Your task to perform on an android device: open app "ColorNote Notepad Notes" Image 0: 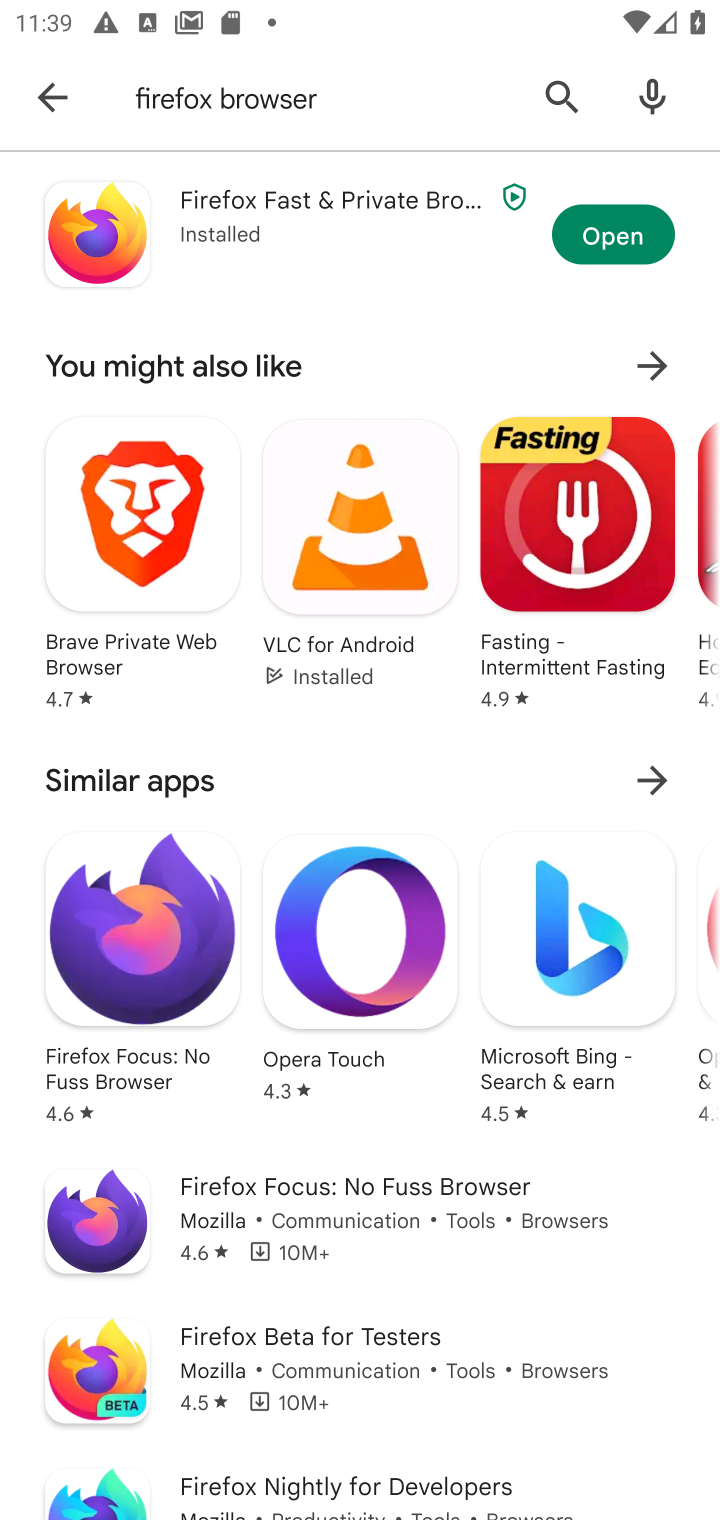
Step 0: press home button
Your task to perform on an android device: open app "ColorNote Notepad Notes" Image 1: 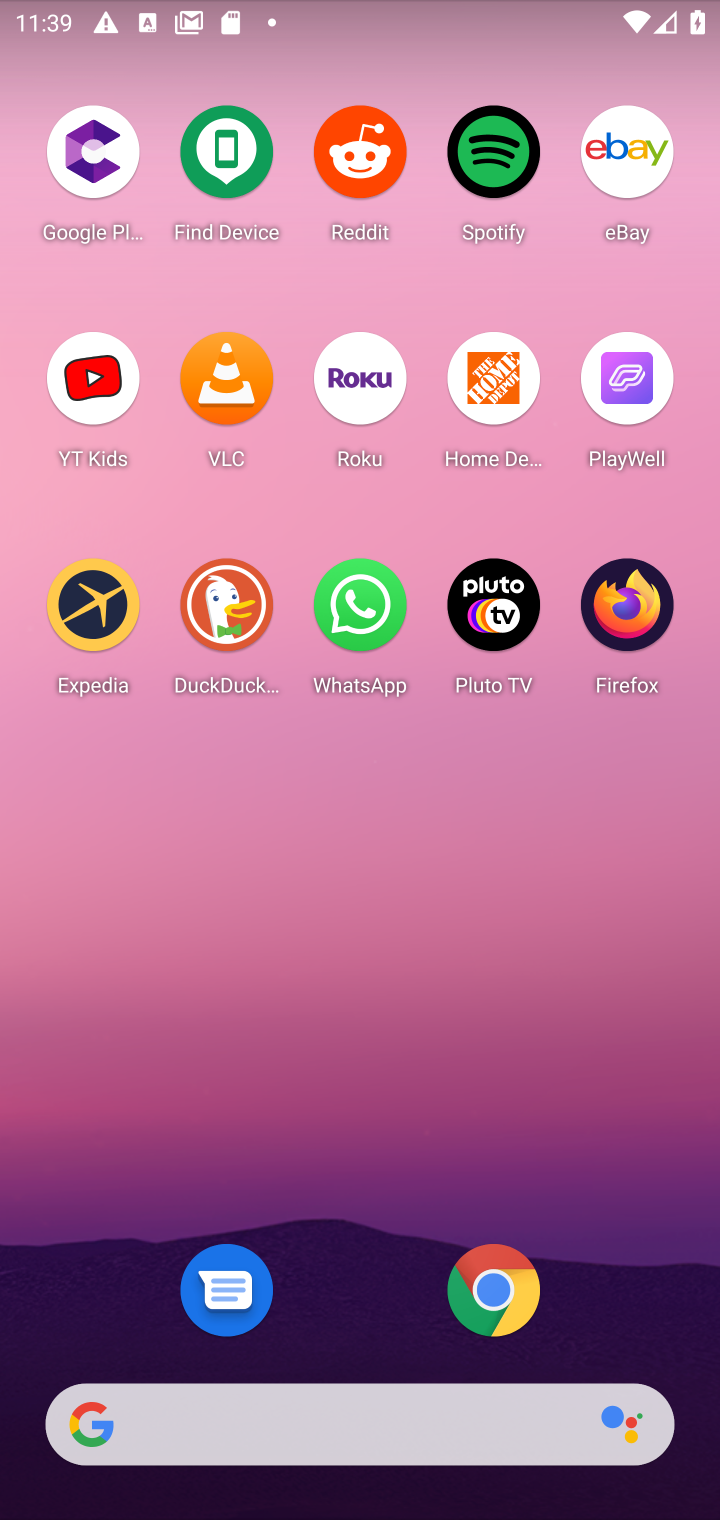
Step 1: drag from (330, 1374) to (330, 150)
Your task to perform on an android device: open app "ColorNote Notepad Notes" Image 2: 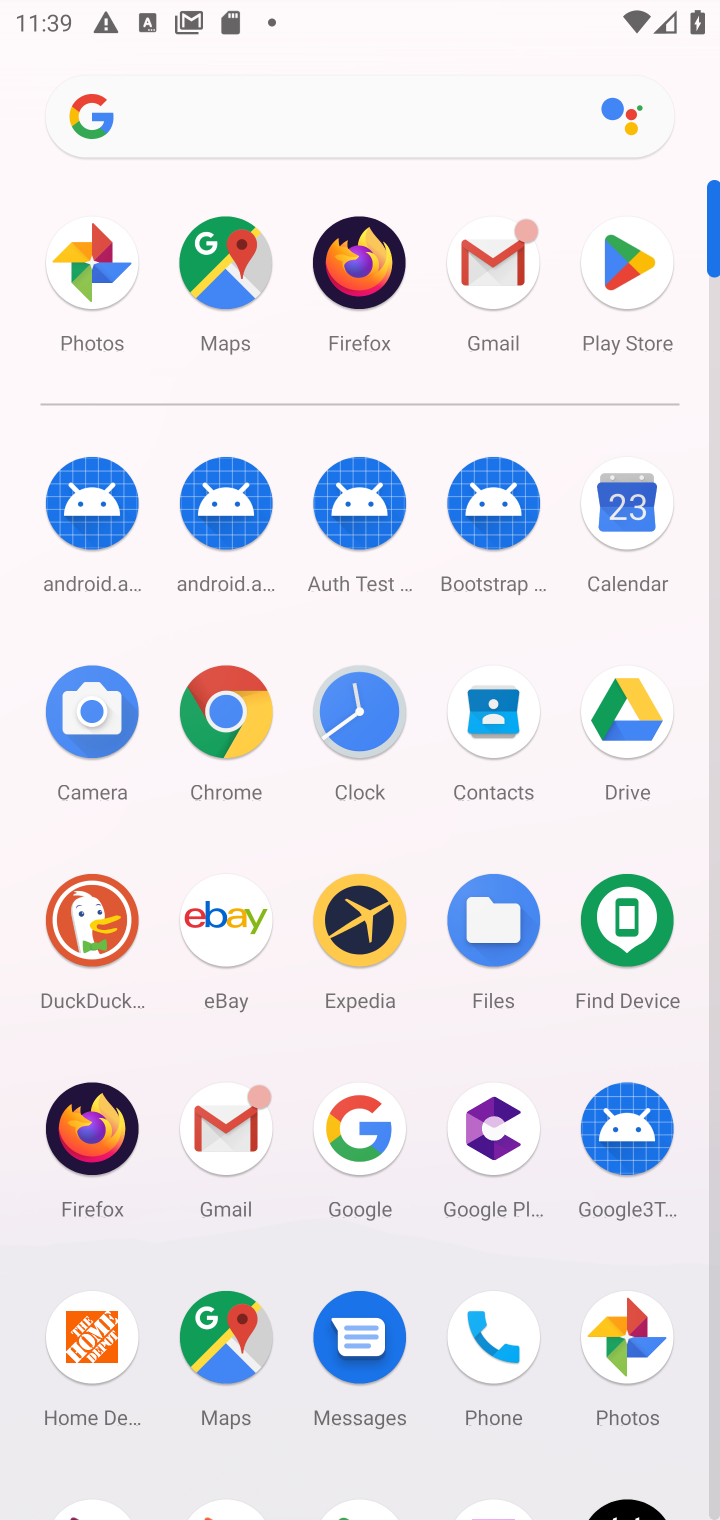
Step 2: click (628, 255)
Your task to perform on an android device: open app "ColorNote Notepad Notes" Image 3: 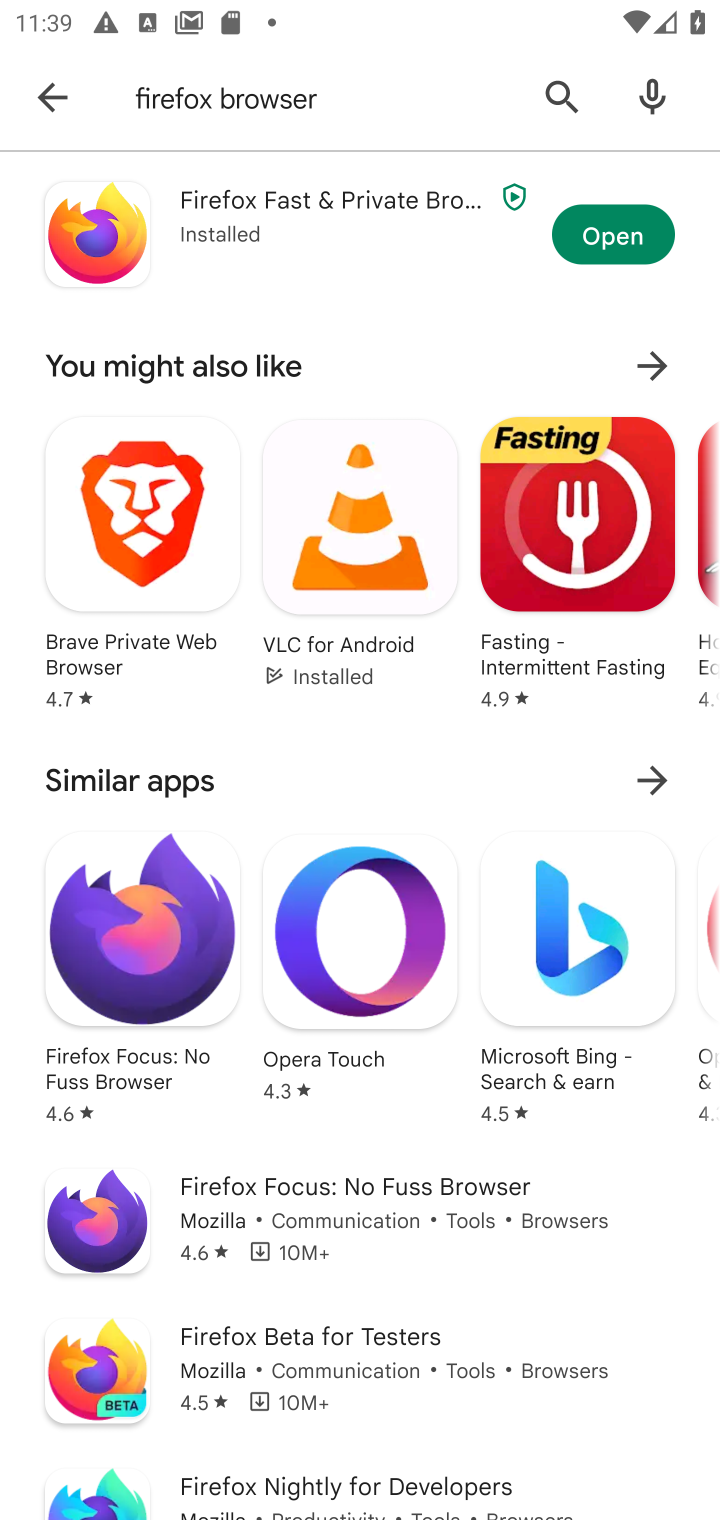
Step 3: click (561, 80)
Your task to perform on an android device: open app "ColorNote Notepad Notes" Image 4: 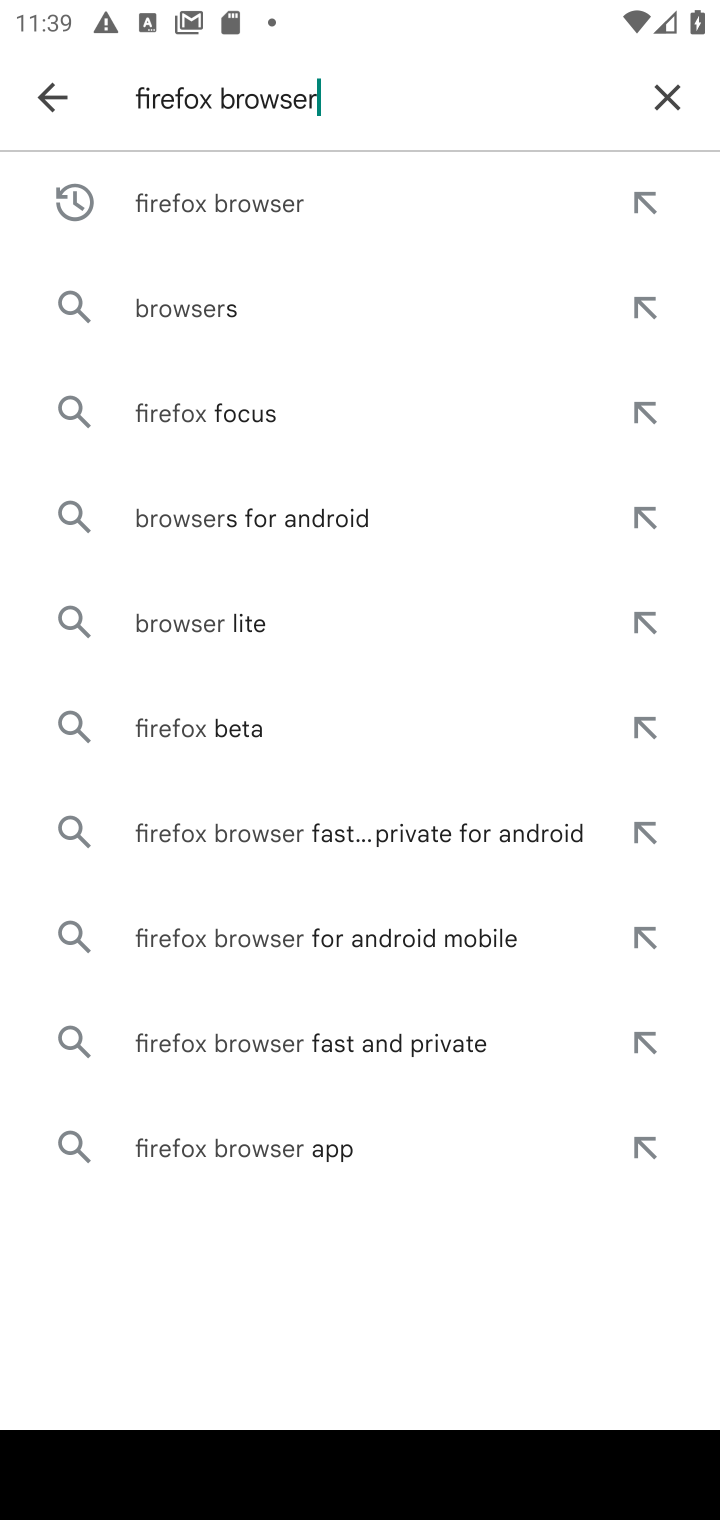
Step 4: click (665, 97)
Your task to perform on an android device: open app "ColorNote Notepad Notes" Image 5: 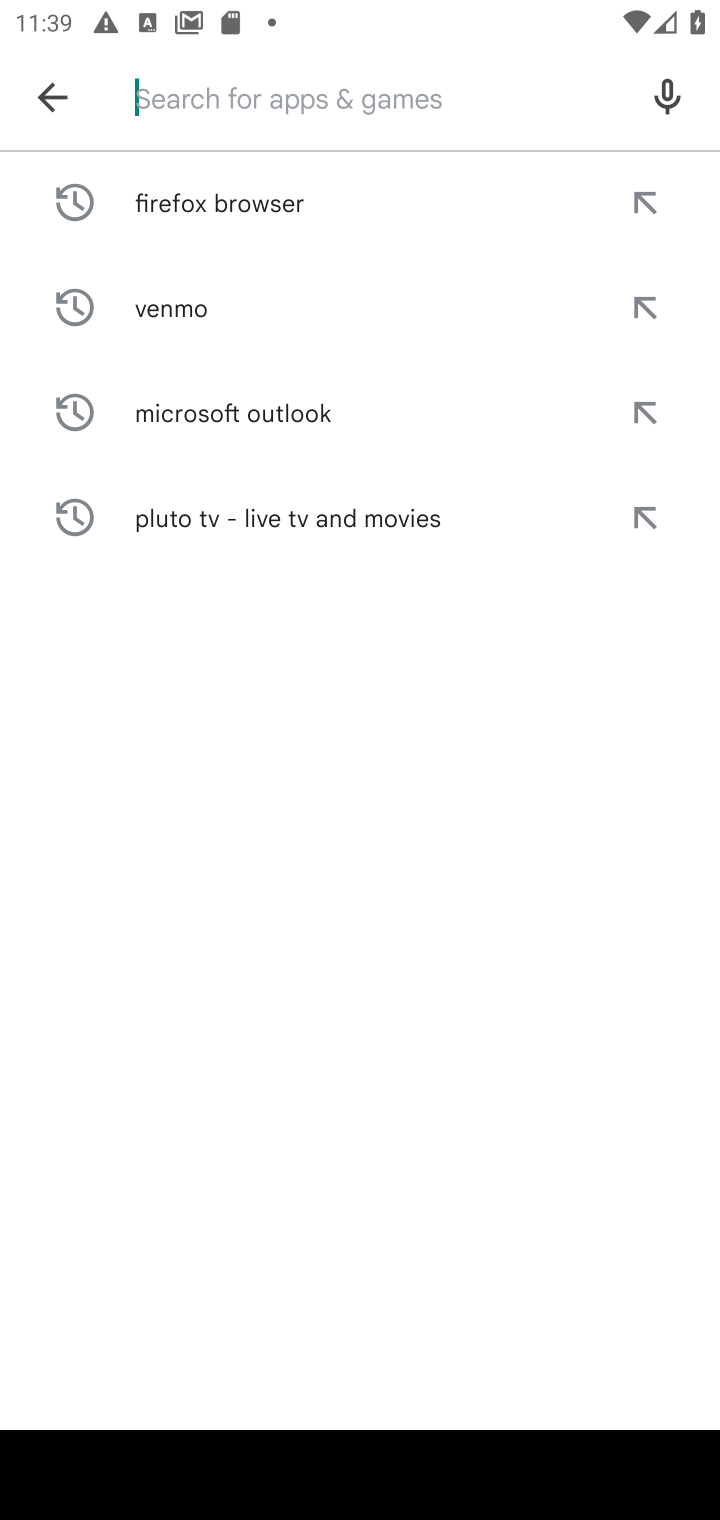
Step 5: type "ColorNote Notepad Notes"
Your task to perform on an android device: open app "ColorNote Notepad Notes" Image 6: 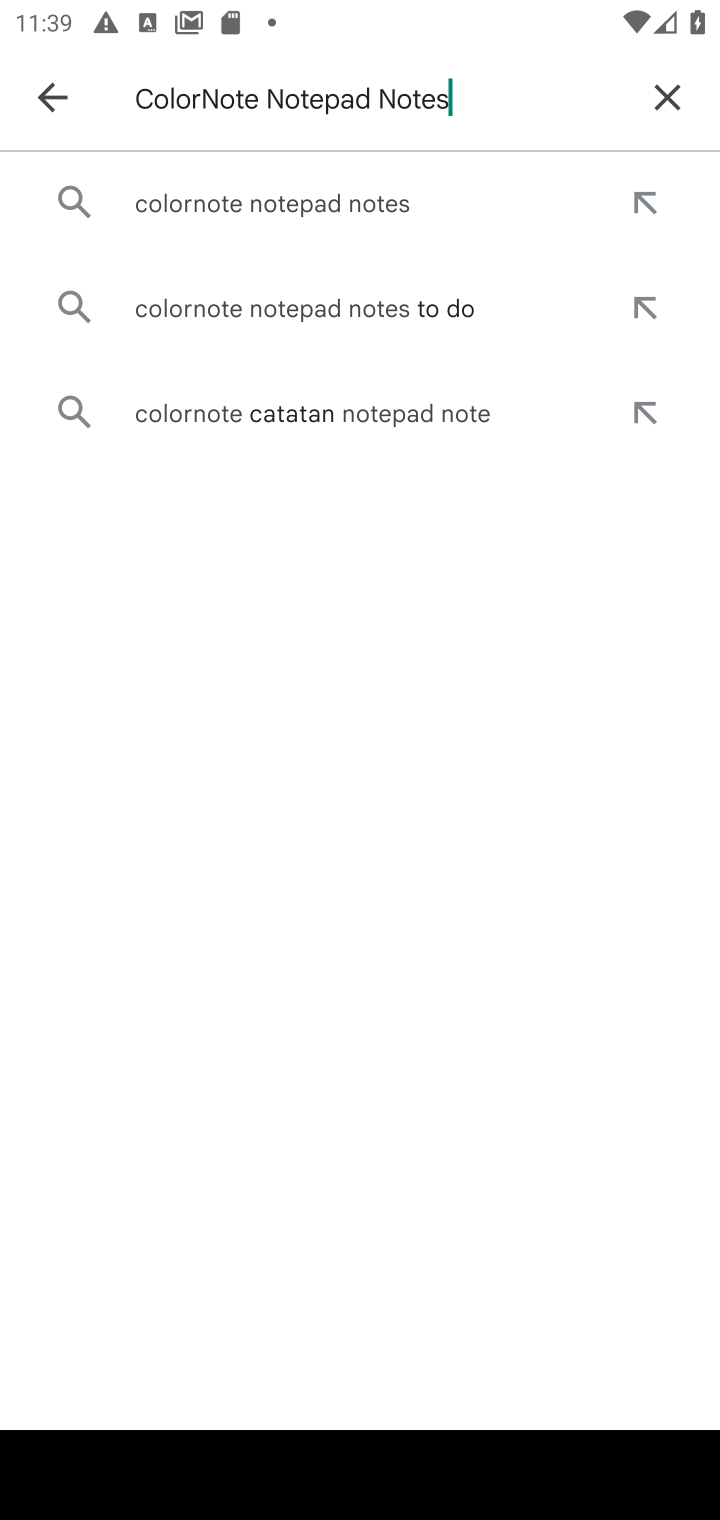
Step 6: type ""
Your task to perform on an android device: open app "ColorNote Notepad Notes" Image 7: 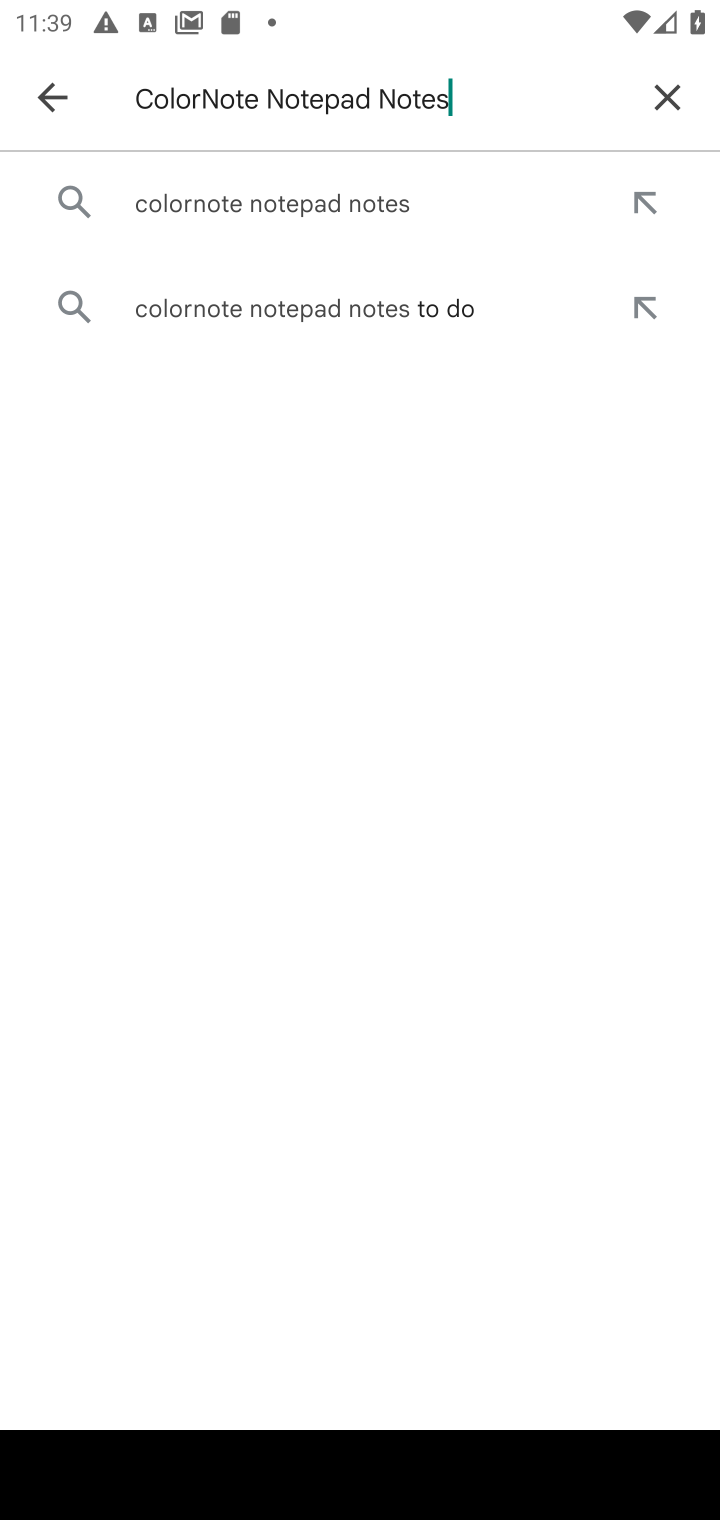
Step 7: click (349, 203)
Your task to perform on an android device: open app "ColorNote Notepad Notes" Image 8: 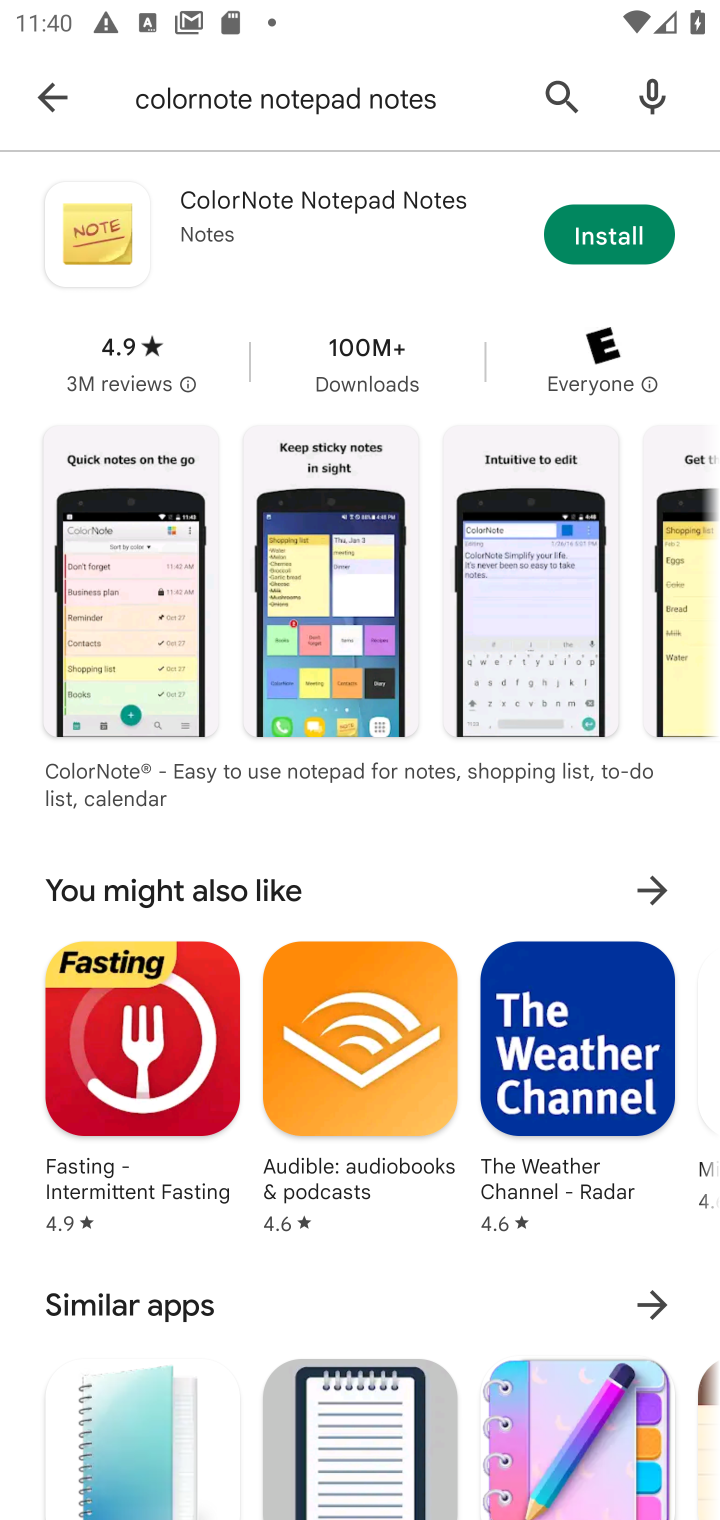
Step 8: task complete